Your task to perform on an android device: stop showing notifications on the lock screen Image 0: 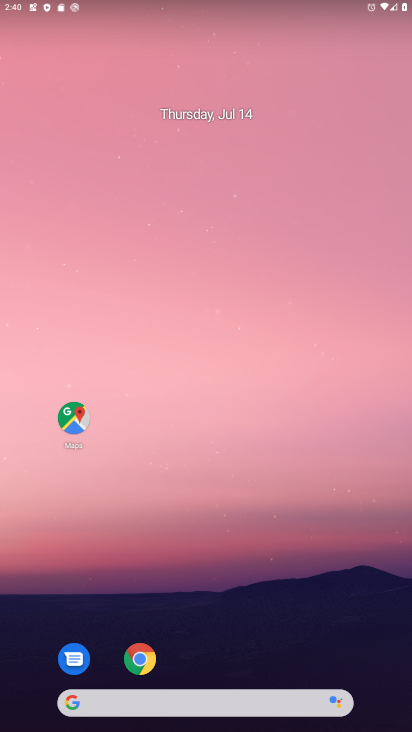
Step 0: press home button
Your task to perform on an android device: stop showing notifications on the lock screen Image 1: 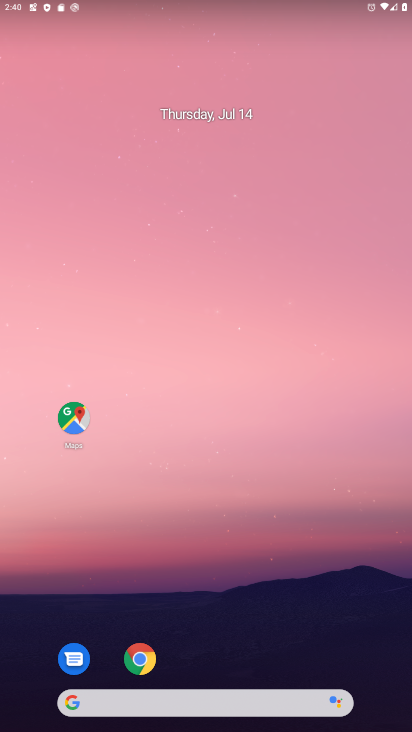
Step 1: drag from (278, 631) to (302, 8)
Your task to perform on an android device: stop showing notifications on the lock screen Image 2: 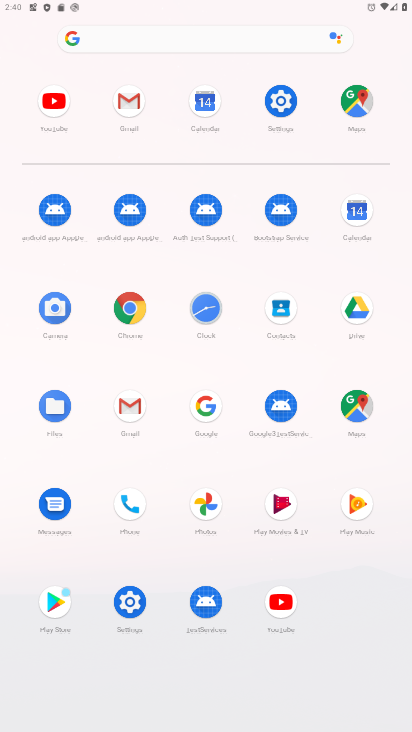
Step 2: click (290, 104)
Your task to perform on an android device: stop showing notifications on the lock screen Image 3: 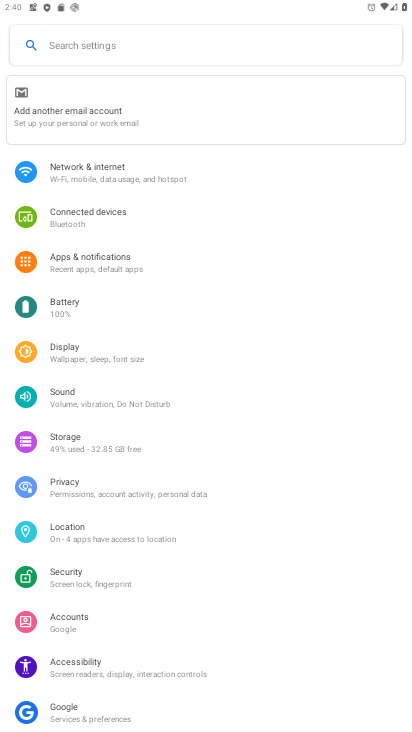
Step 3: click (110, 258)
Your task to perform on an android device: stop showing notifications on the lock screen Image 4: 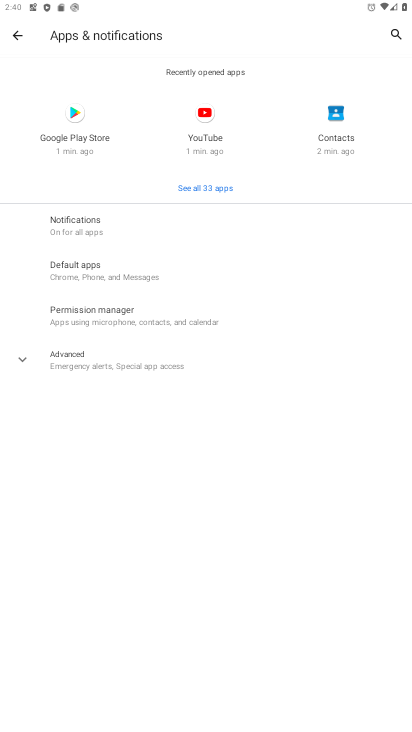
Step 4: click (75, 228)
Your task to perform on an android device: stop showing notifications on the lock screen Image 5: 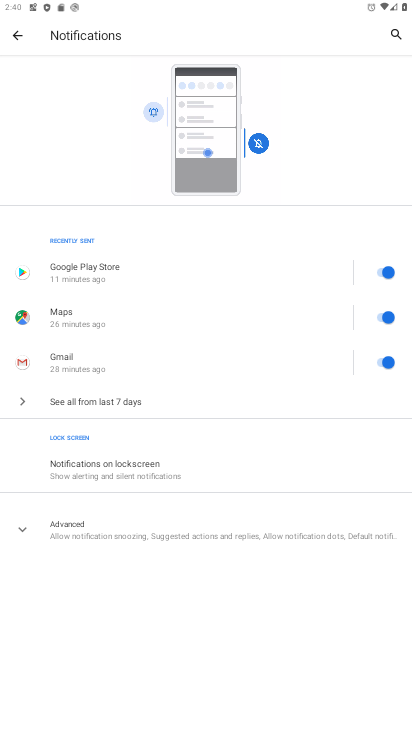
Step 5: click (95, 465)
Your task to perform on an android device: stop showing notifications on the lock screen Image 6: 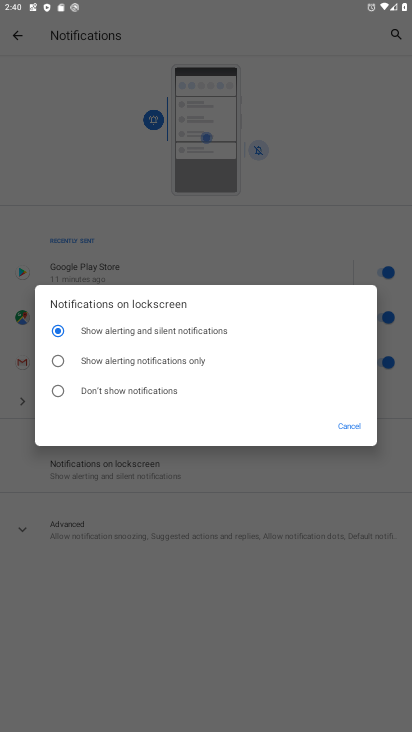
Step 6: click (59, 388)
Your task to perform on an android device: stop showing notifications on the lock screen Image 7: 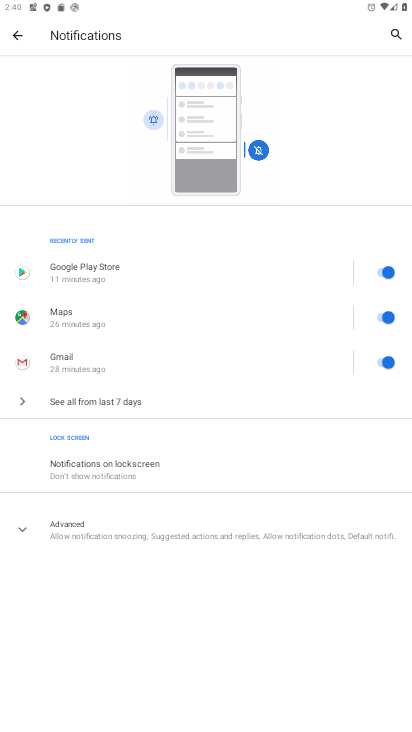
Step 7: task complete